Your task to perform on an android device: add a contact in the contacts app Image 0: 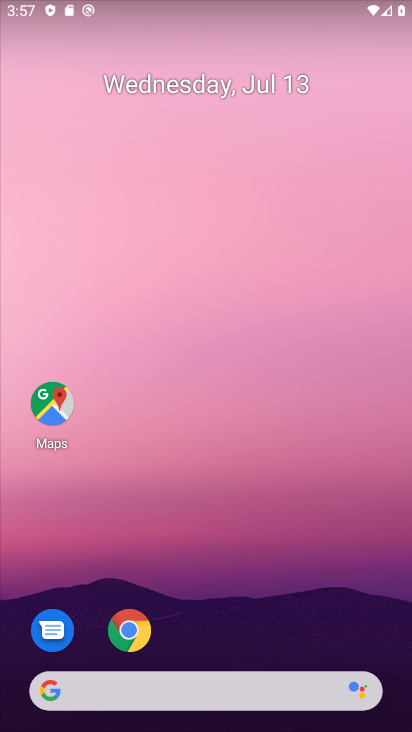
Step 0: press home button
Your task to perform on an android device: add a contact in the contacts app Image 1: 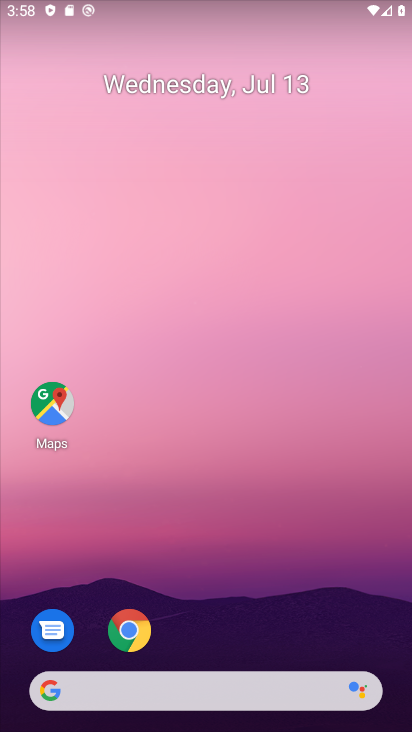
Step 1: drag from (234, 650) to (247, 165)
Your task to perform on an android device: add a contact in the contacts app Image 2: 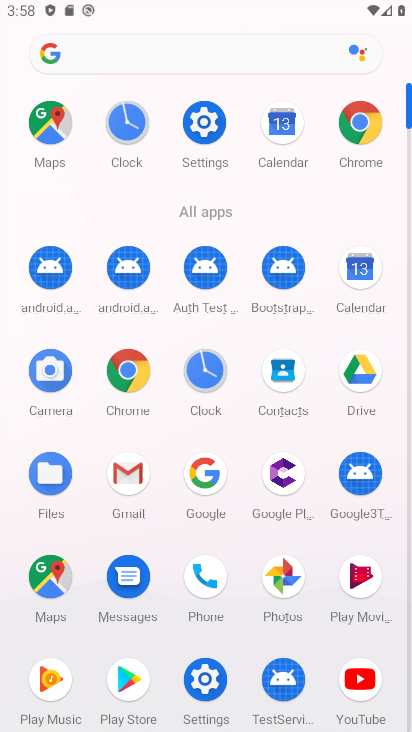
Step 2: click (293, 377)
Your task to perform on an android device: add a contact in the contacts app Image 3: 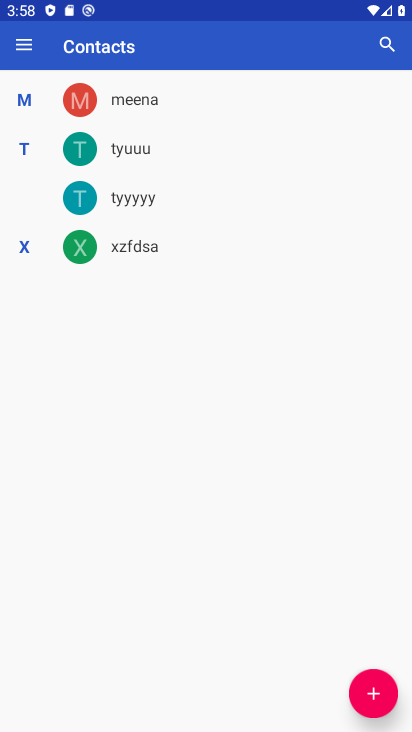
Step 3: click (378, 697)
Your task to perform on an android device: add a contact in the contacts app Image 4: 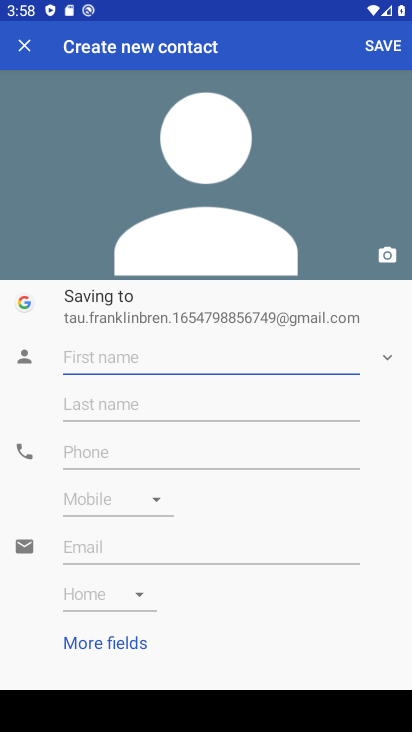
Step 4: type "ghghghg"
Your task to perform on an android device: add a contact in the contacts app Image 5: 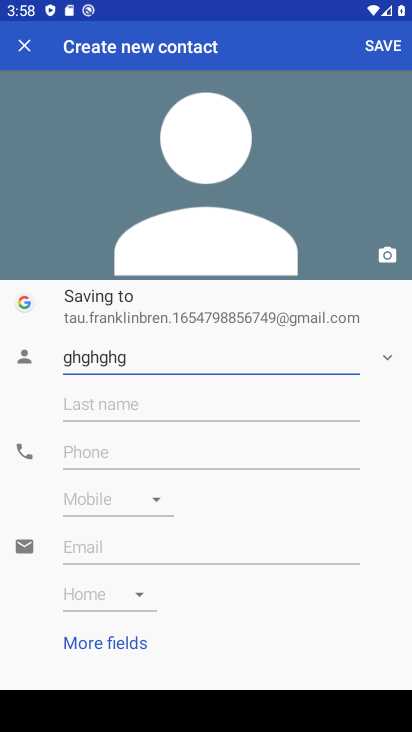
Step 5: click (104, 461)
Your task to perform on an android device: add a contact in the contacts app Image 6: 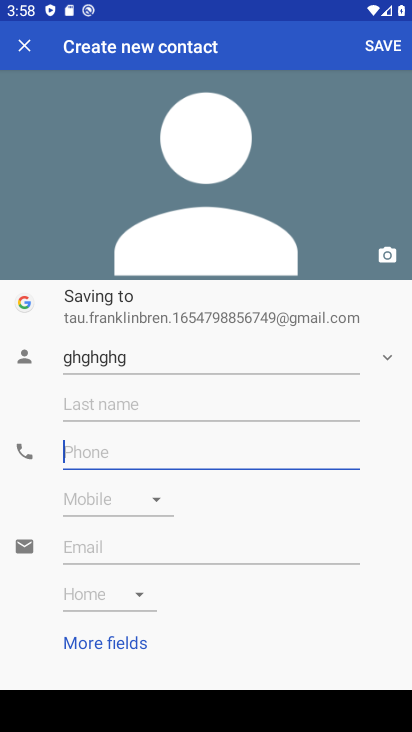
Step 6: type "65767676"
Your task to perform on an android device: add a contact in the contacts app Image 7: 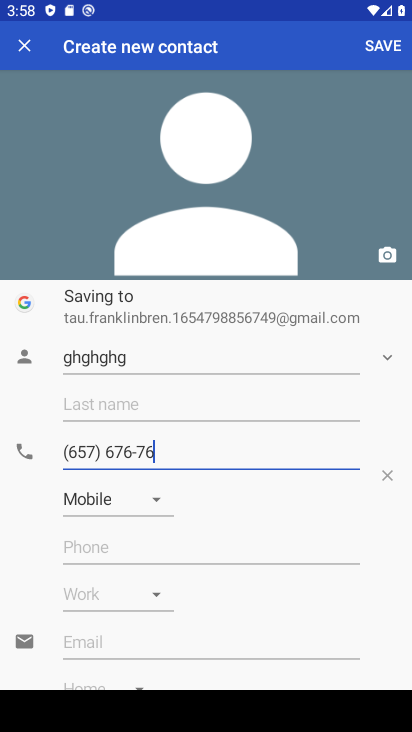
Step 7: click (385, 42)
Your task to perform on an android device: add a contact in the contacts app Image 8: 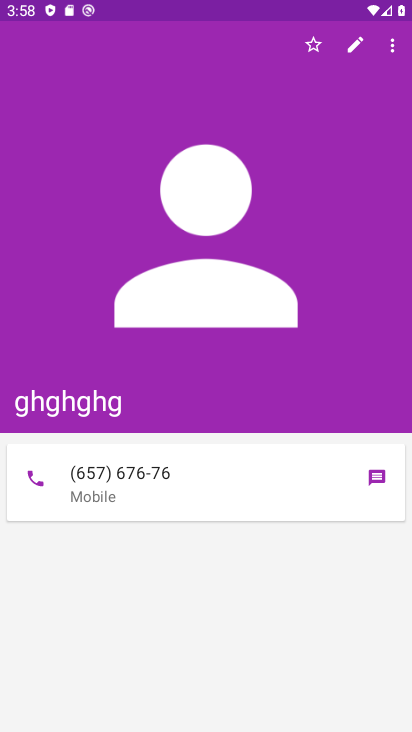
Step 8: task complete